Your task to perform on an android device: create a new album in the google photos Image 0: 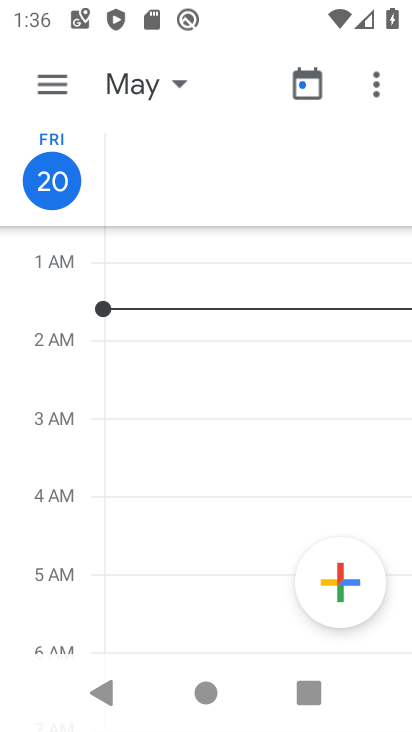
Step 0: press home button
Your task to perform on an android device: create a new album in the google photos Image 1: 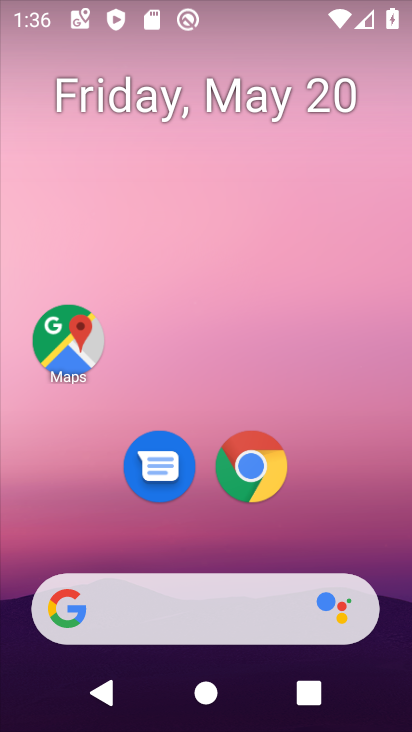
Step 1: drag from (206, 540) to (314, 8)
Your task to perform on an android device: create a new album in the google photos Image 2: 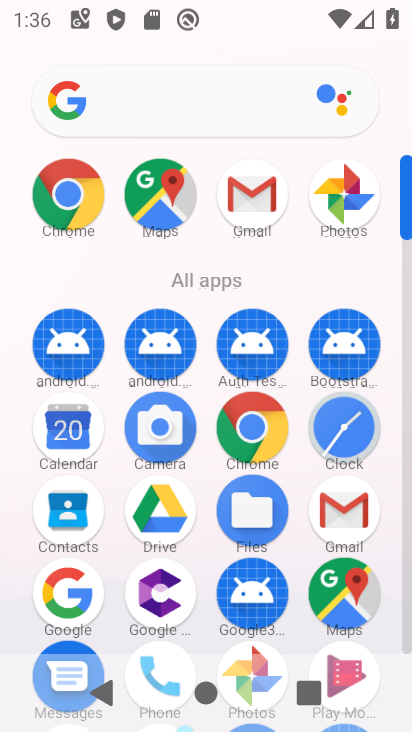
Step 2: click (350, 164)
Your task to perform on an android device: create a new album in the google photos Image 3: 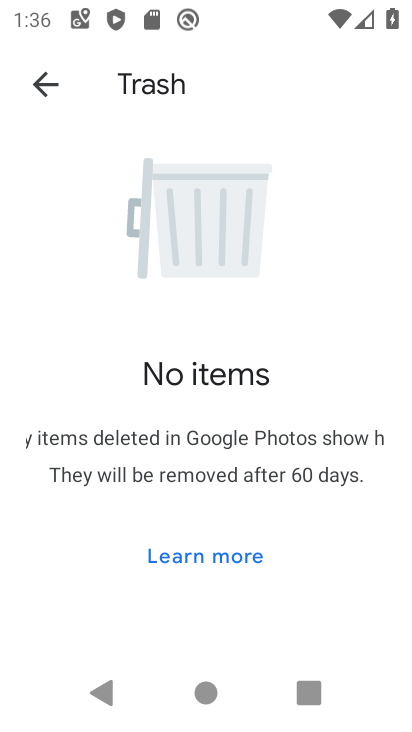
Step 3: click (39, 77)
Your task to perform on an android device: create a new album in the google photos Image 4: 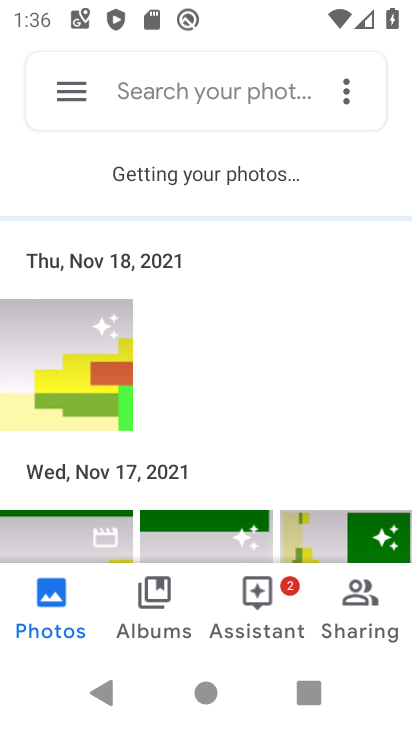
Step 4: click (101, 387)
Your task to perform on an android device: create a new album in the google photos Image 5: 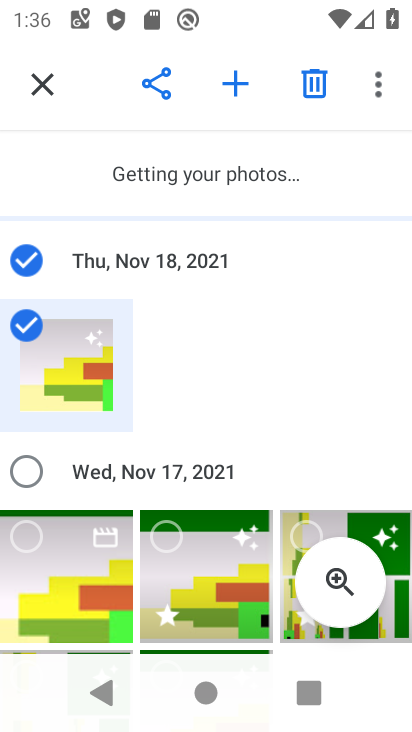
Step 5: click (246, 84)
Your task to perform on an android device: create a new album in the google photos Image 6: 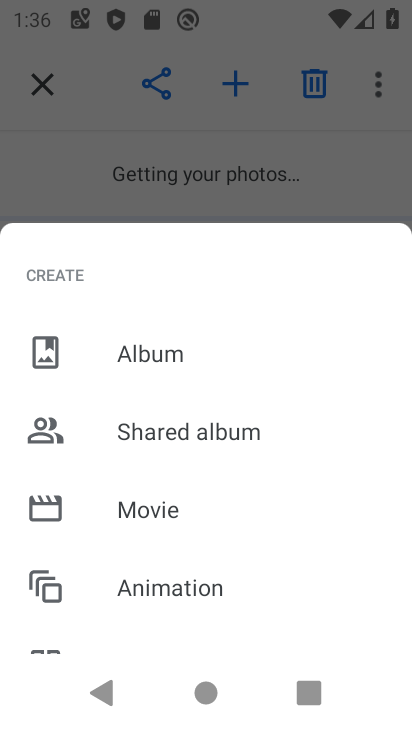
Step 6: click (128, 343)
Your task to perform on an android device: create a new album in the google photos Image 7: 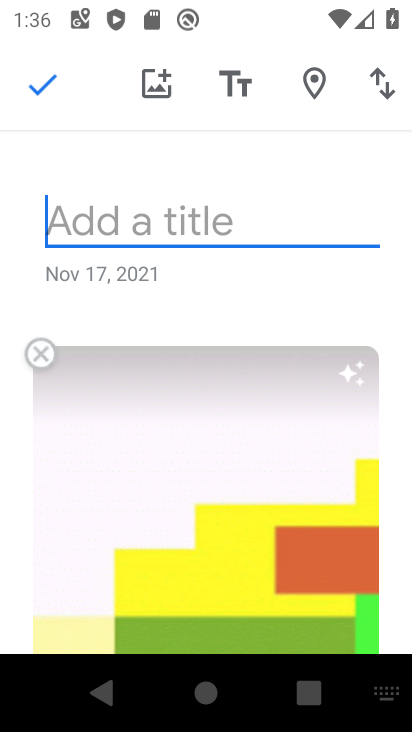
Step 7: type "hinj"
Your task to perform on an android device: create a new album in the google photos Image 8: 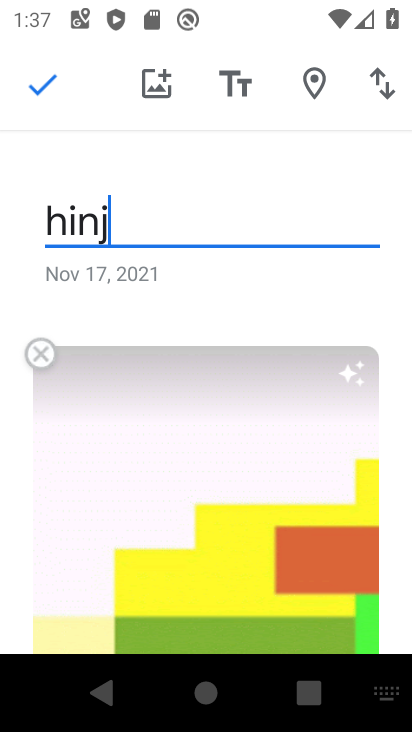
Step 8: click (50, 88)
Your task to perform on an android device: create a new album in the google photos Image 9: 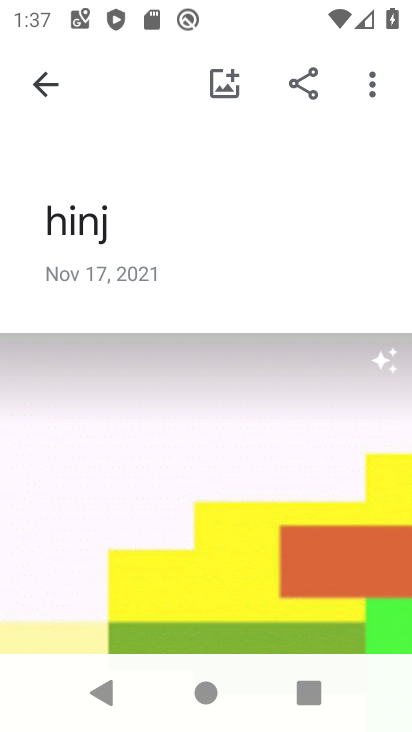
Step 9: task complete